Your task to perform on an android device: Search for Italian restaurants on Maps Image 0: 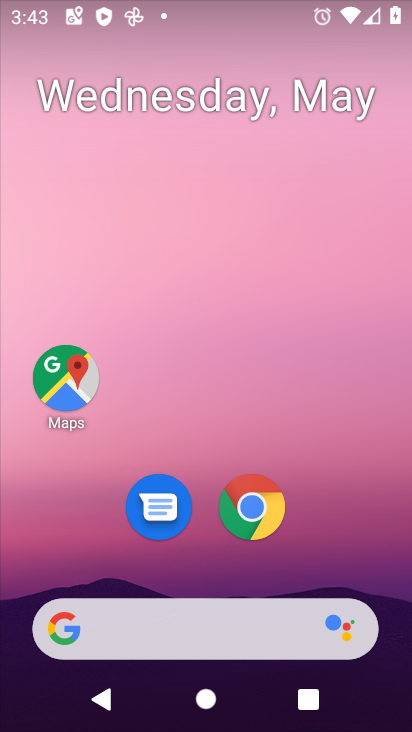
Step 0: click (59, 408)
Your task to perform on an android device: Search for Italian restaurants on Maps Image 1: 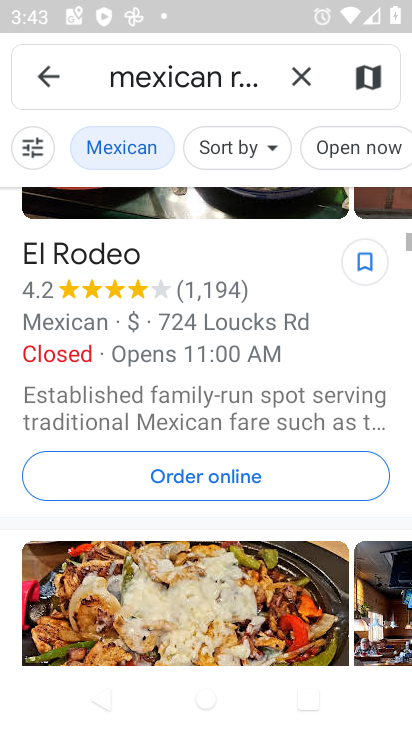
Step 1: click (277, 75)
Your task to perform on an android device: Search for Italian restaurants on Maps Image 2: 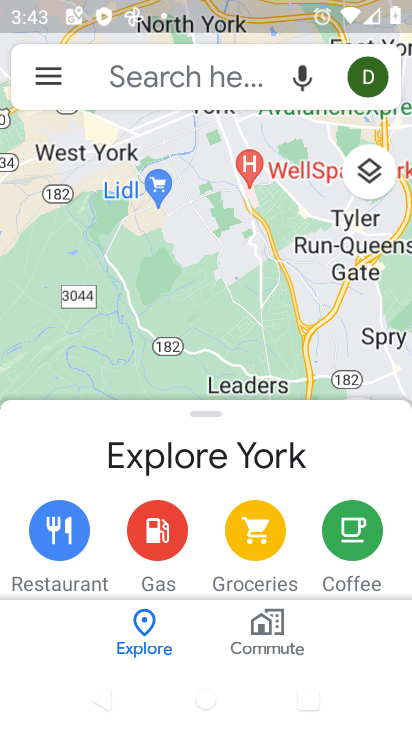
Step 2: click (148, 69)
Your task to perform on an android device: Search for Italian restaurants on Maps Image 3: 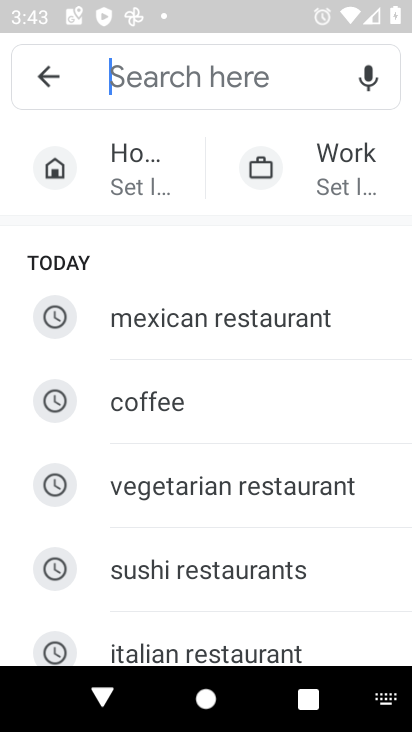
Step 3: click (197, 648)
Your task to perform on an android device: Search for Italian restaurants on Maps Image 4: 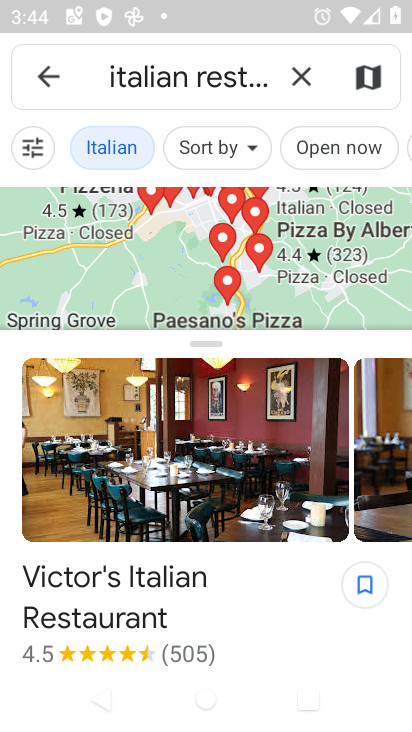
Step 4: task complete